Your task to perform on an android device: Toggle the flashlight Image 0: 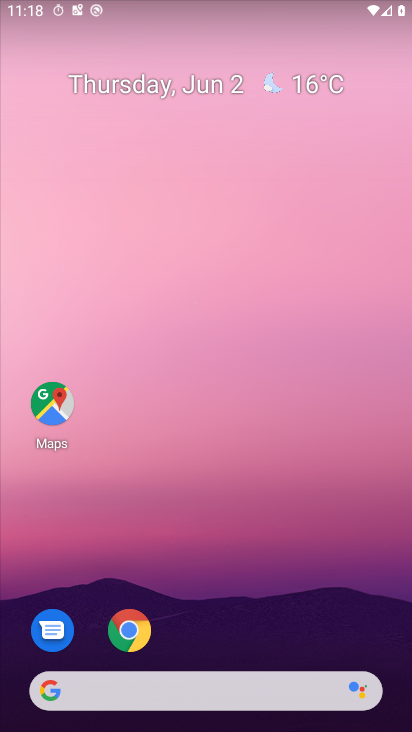
Step 0: drag from (225, 650) to (282, 263)
Your task to perform on an android device: Toggle the flashlight Image 1: 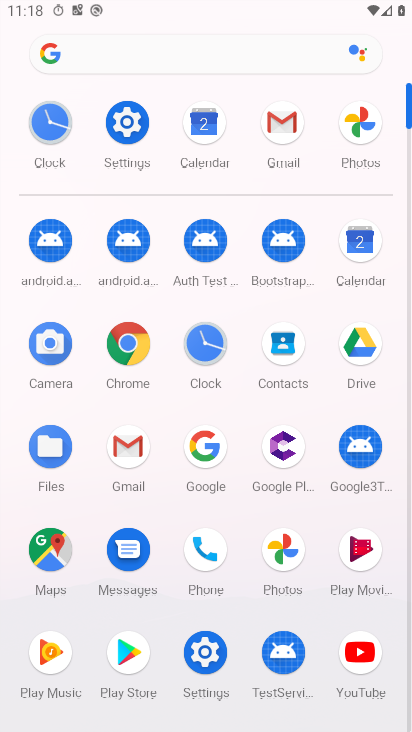
Step 1: click (128, 121)
Your task to perform on an android device: Toggle the flashlight Image 2: 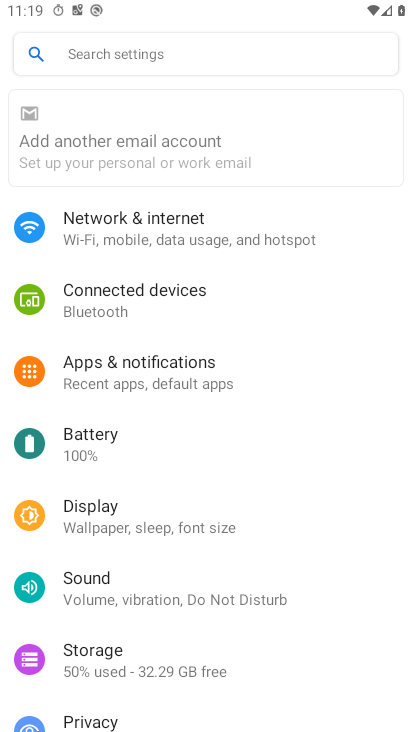
Step 2: click (218, 56)
Your task to perform on an android device: Toggle the flashlight Image 3: 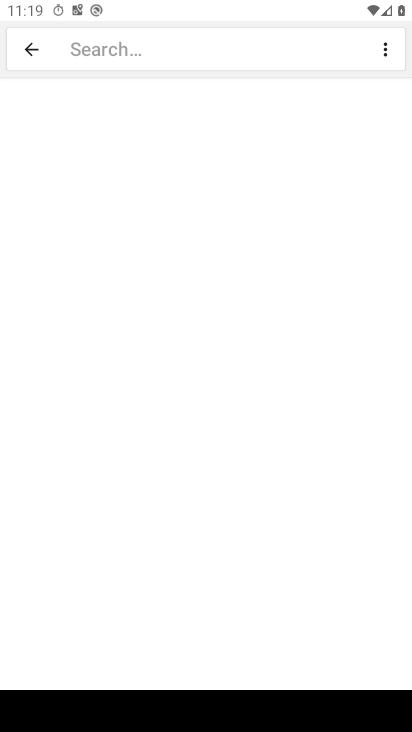
Step 3: type "flashlight"
Your task to perform on an android device: Toggle the flashlight Image 4: 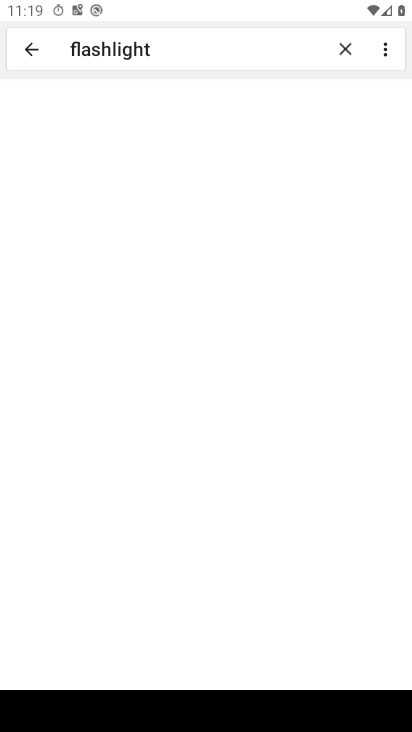
Step 4: click (202, 107)
Your task to perform on an android device: Toggle the flashlight Image 5: 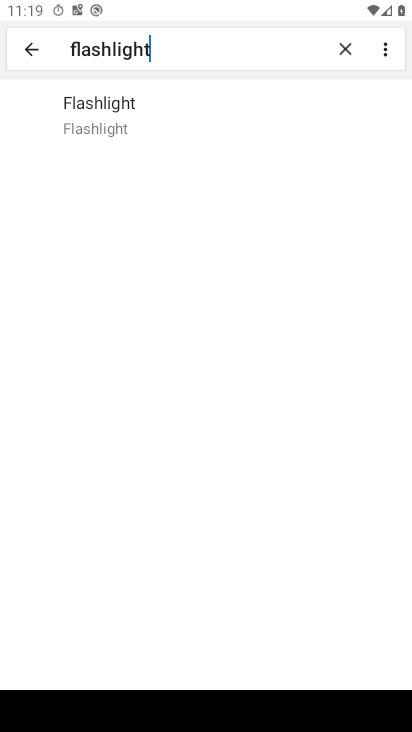
Step 5: click (106, 126)
Your task to perform on an android device: Toggle the flashlight Image 6: 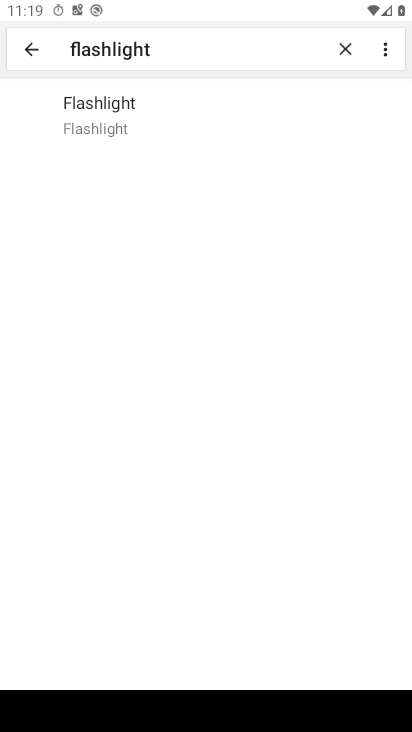
Step 6: click (107, 125)
Your task to perform on an android device: Toggle the flashlight Image 7: 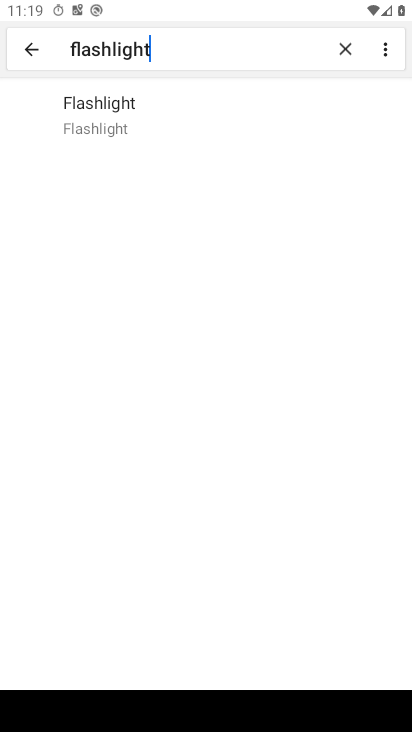
Step 7: task complete